Your task to perform on an android device: open app "Microsoft Authenticator" (install if not already installed) Image 0: 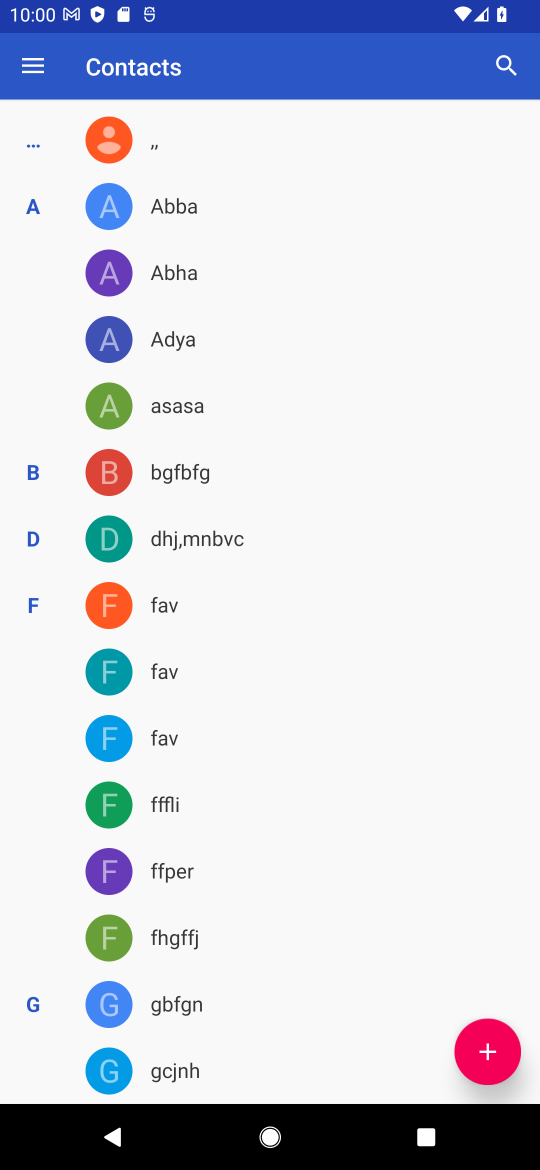
Step 0: press home button
Your task to perform on an android device: open app "Microsoft Authenticator" (install if not already installed) Image 1: 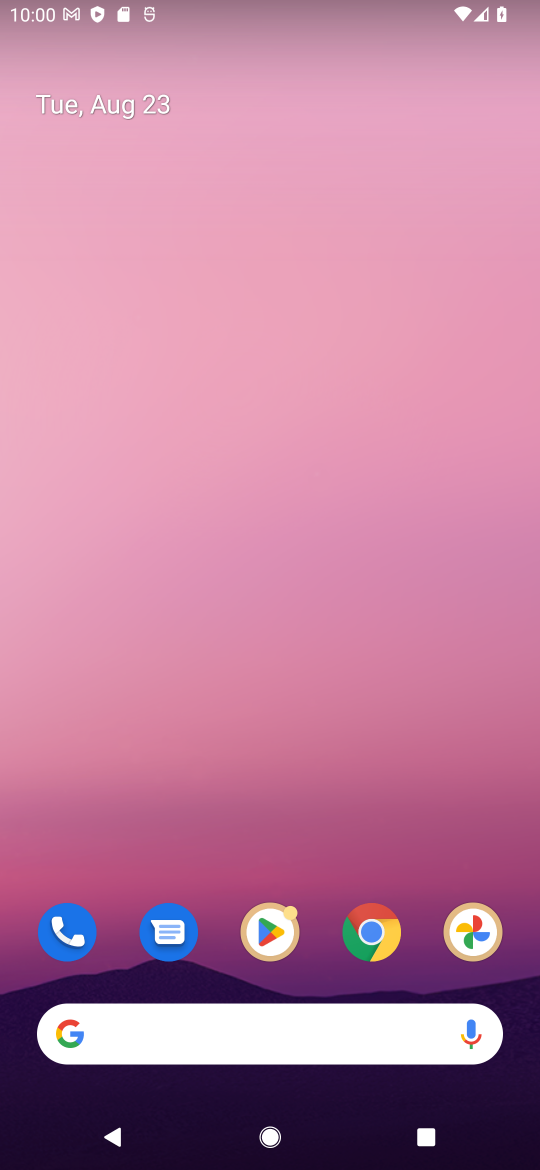
Step 1: click (272, 932)
Your task to perform on an android device: open app "Microsoft Authenticator" (install if not already installed) Image 2: 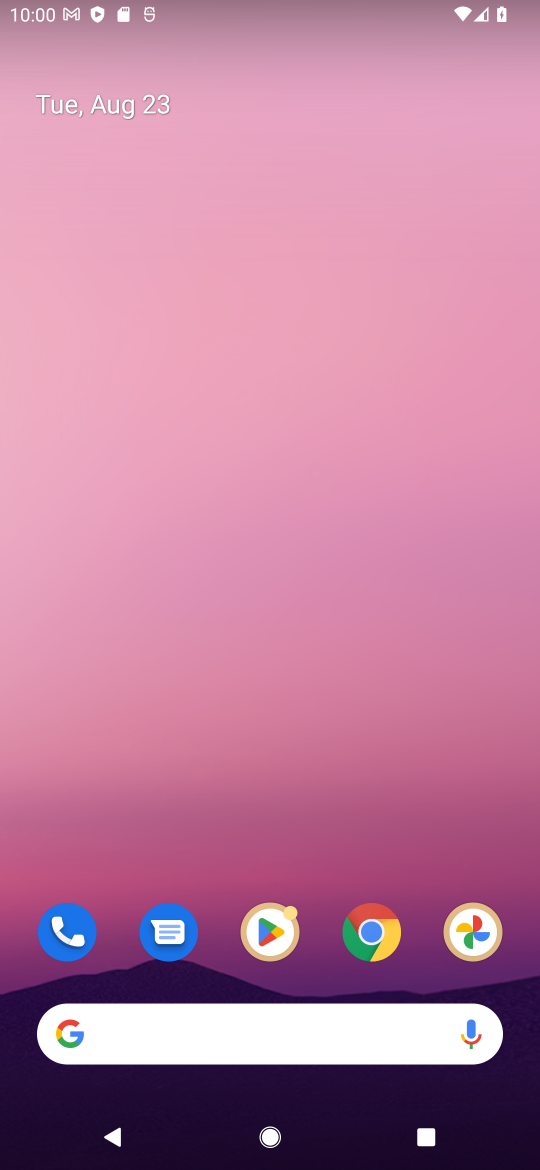
Step 2: click (283, 950)
Your task to perform on an android device: open app "Microsoft Authenticator" (install if not already installed) Image 3: 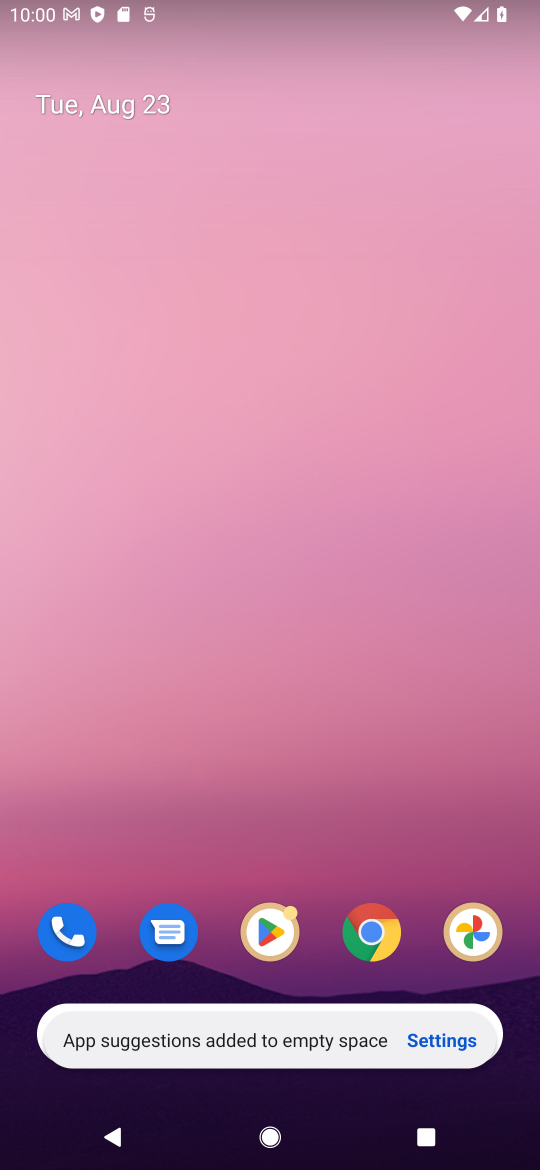
Step 3: click (283, 950)
Your task to perform on an android device: open app "Microsoft Authenticator" (install if not already installed) Image 4: 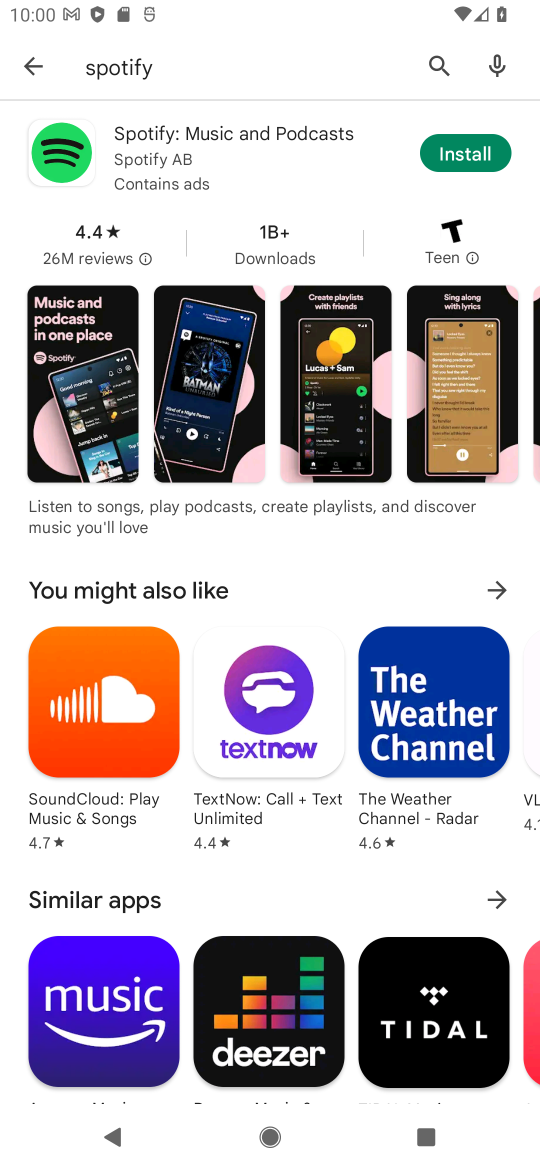
Step 4: click (433, 59)
Your task to perform on an android device: open app "Microsoft Authenticator" (install if not already installed) Image 5: 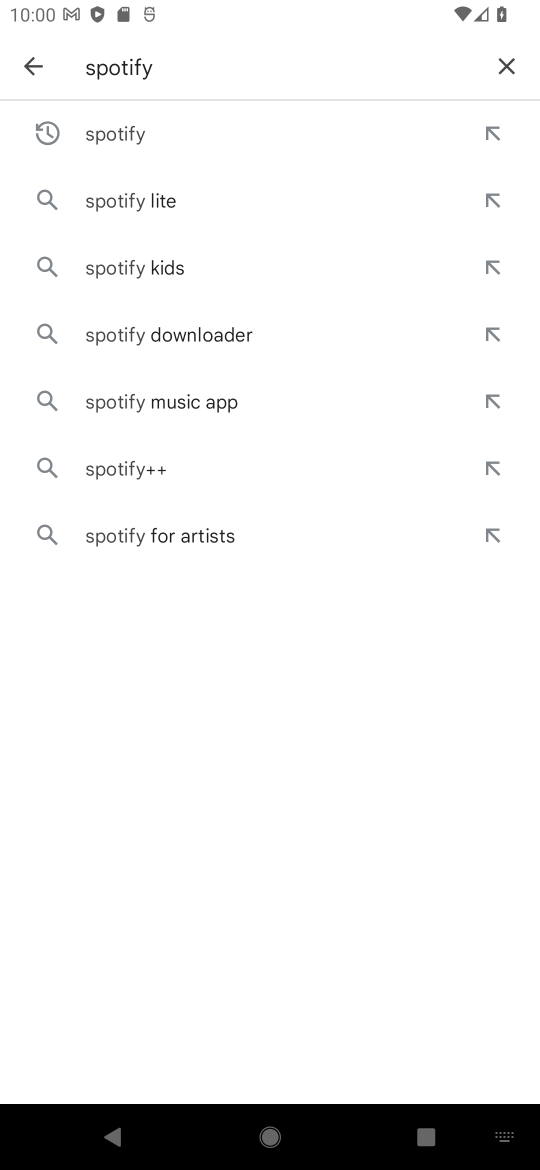
Step 5: click (513, 69)
Your task to perform on an android device: open app "Microsoft Authenticator" (install if not already installed) Image 6: 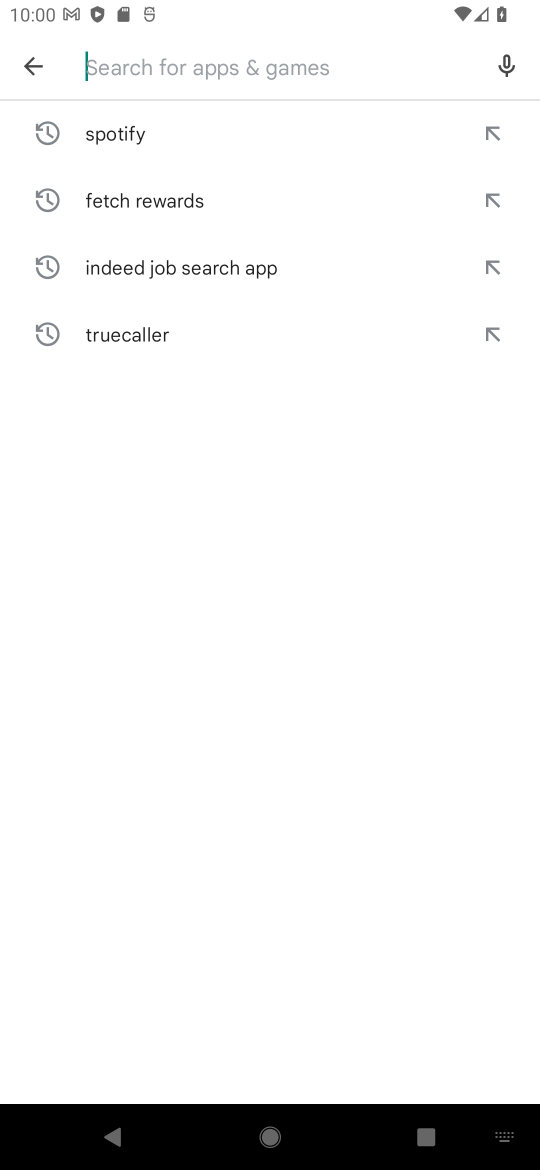
Step 6: type "microsoft authrnticator"
Your task to perform on an android device: open app "Microsoft Authenticator" (install if not already installed) Image 7: 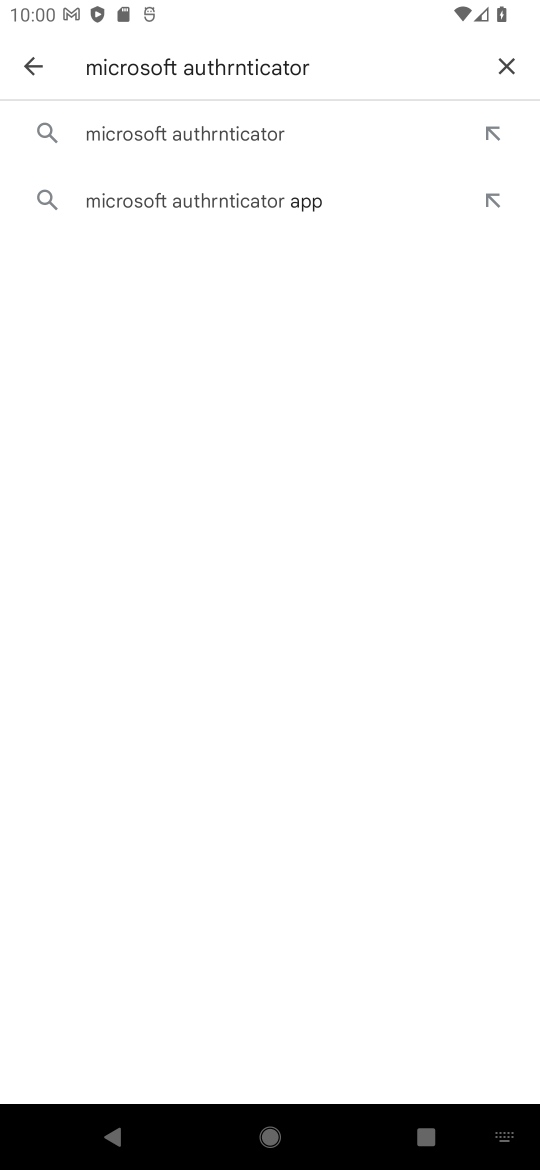
Step 7: click (212, 152)
Your task to perform on an android device: open app "Microsoft Authenticator" (install if not already installed) Image 8: 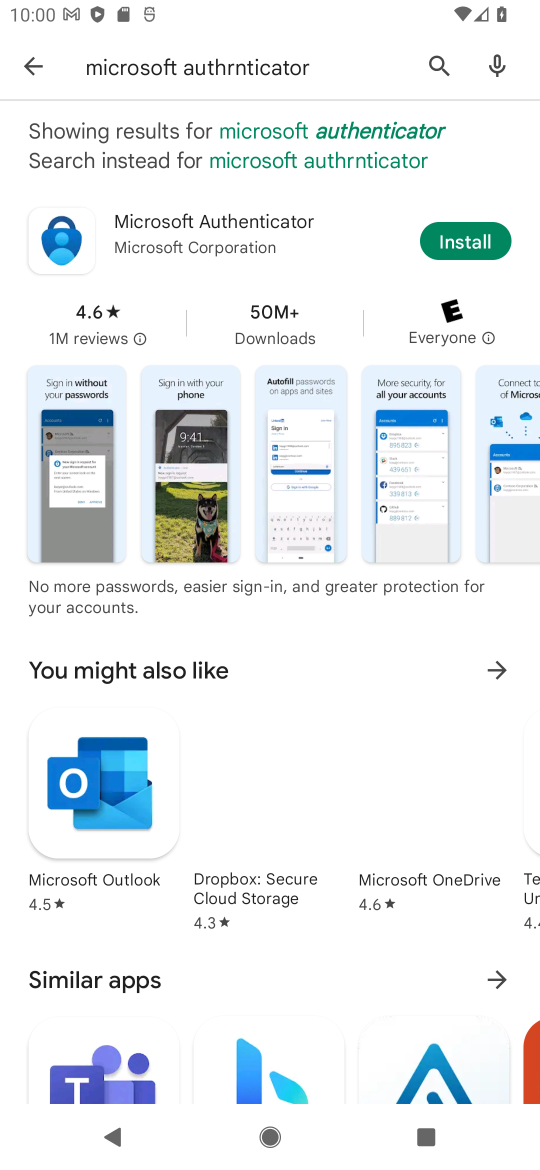
Step 8: click (465, 240)
Your task to perform on an android device: open app "Microsoft Authenticator" (install if not already installed) Image 9: 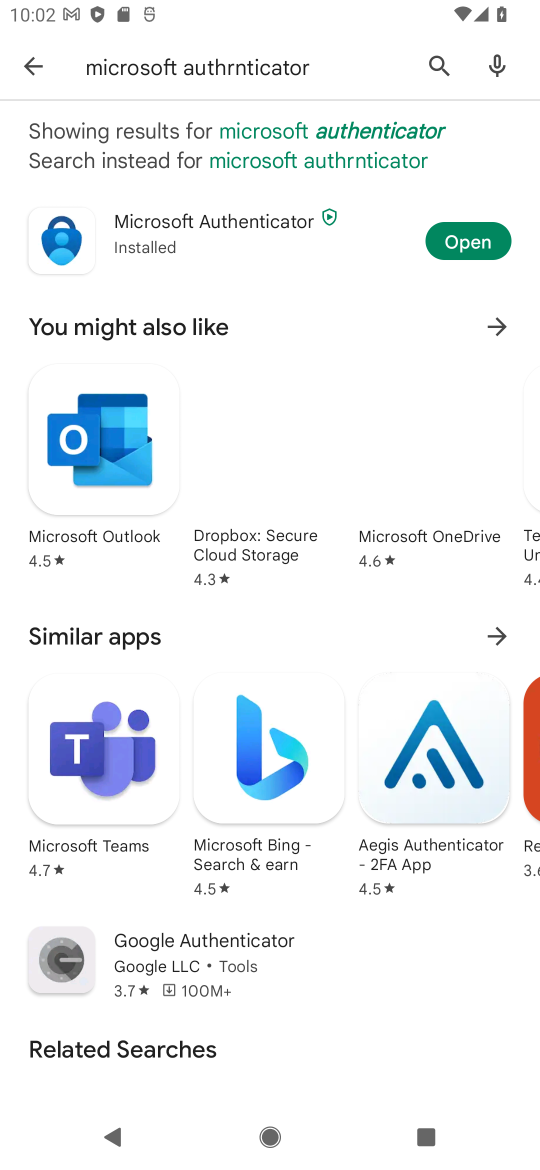
Step 9: click (465, 243)
Your task to perform on an android device: open app "Microsoft Authenticator" (install if not already installed) Image 10: 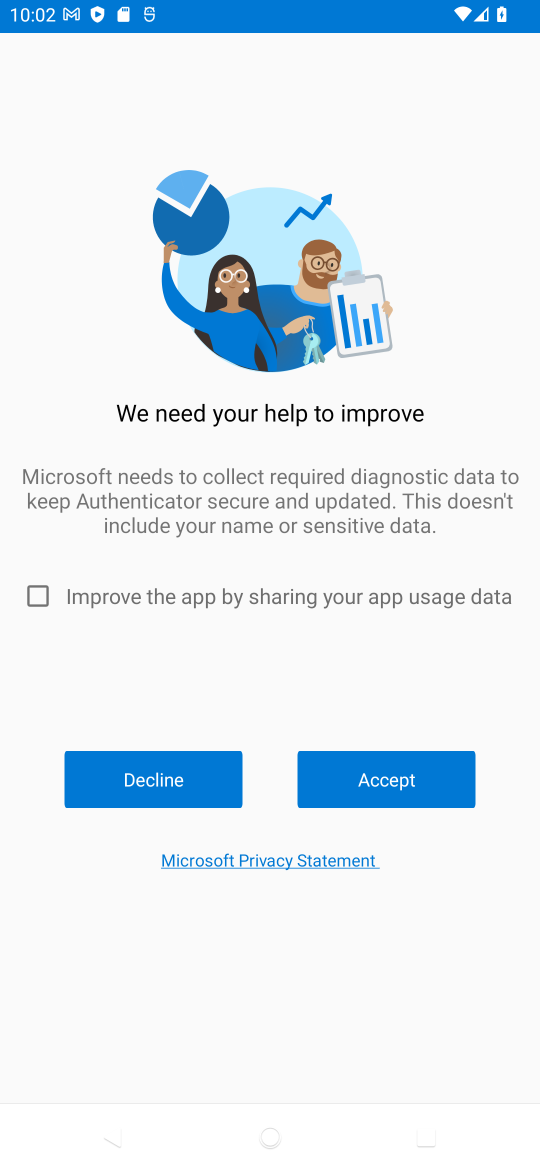
Step 10: task complete